Your task to perform on an android device: turn pop-ups on in chrome Image 0: 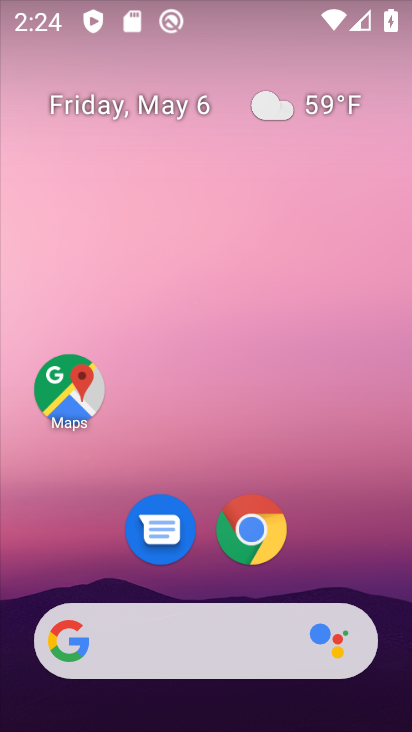
Step 0: drag from (338, 552) to (405, 0)
Your task to perform on an android device: turn pop-ups on in chrome Image 1: 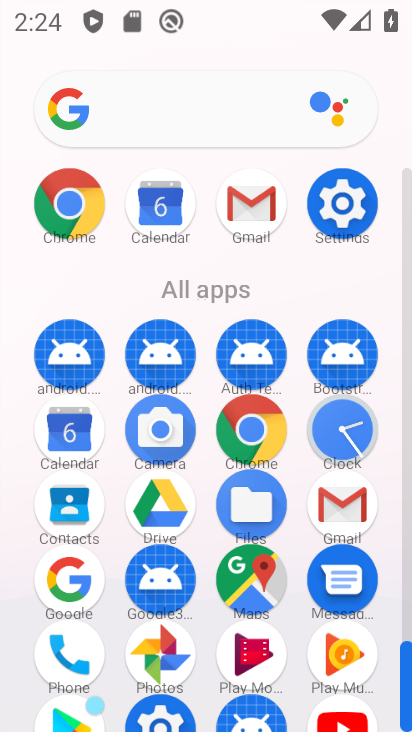
Step 1: click (77, 223)
Your task to perform on an android device: turn pop-ups on in chrome Image 2: 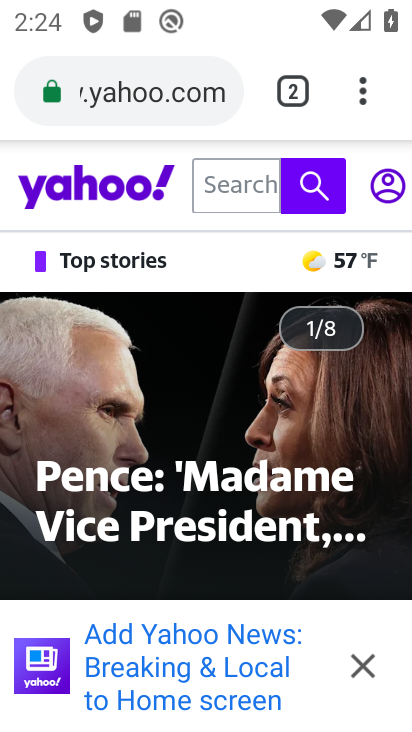
Step 2: drag from (371, 101) to (98, 546)
Your task to perform on an android device: turn pop-ups on in chrome Image 3: 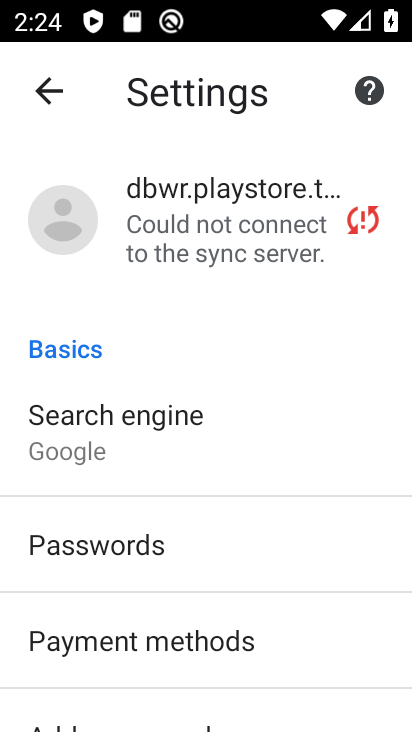
Step 3: drag from (138, 568) to (189, 84)
Your task to perform on an android device: turn pop-ups on in chrome Image 4: 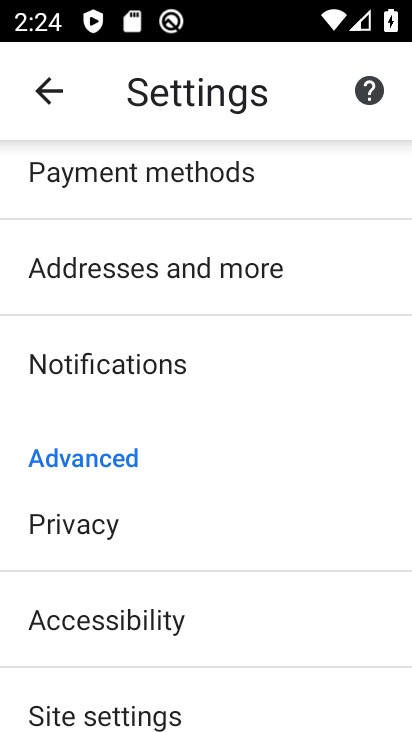
Step 4: drag from (160, 556) to (157, 200)
Your task to perform on an android device: turn pop-ups on in chrome Image 5: 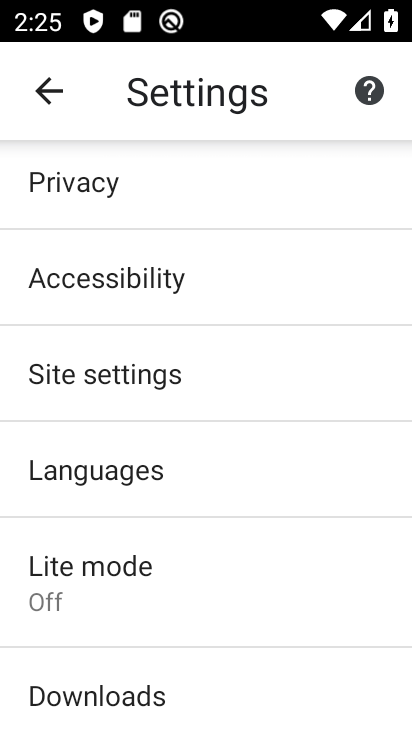
Step 5: click (71, 369)
Your task to perform on an android device: turn pop-ups on in chrome Image 6: 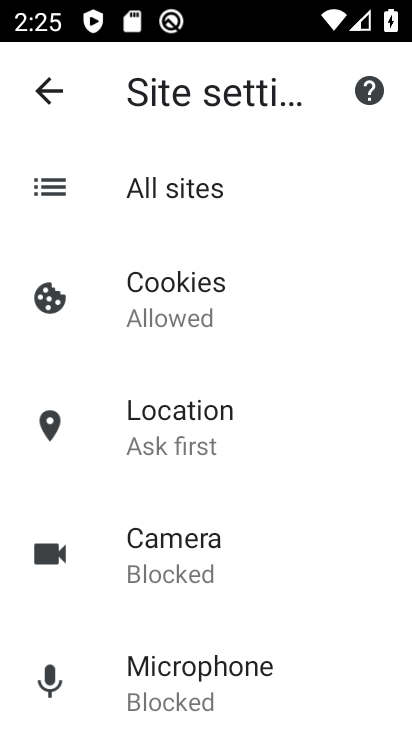
Step 6: drag from (189, 592) to (230, 236)
Your task to perform on an android device: turn pop-ups on in chrome Image 7: 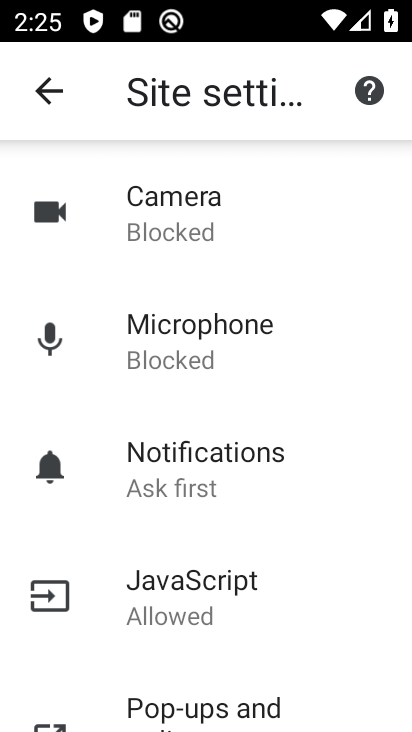
Step 7: drag from (195, 692) to (211, 348)
Your task to perform on an android device: turn pop-ups on in chrome Image 8: 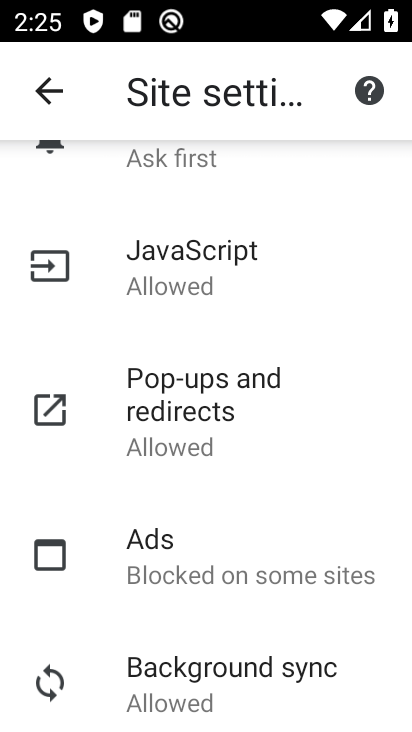
Step 8: click (180, 398)
Your task to perform on an android device: turn pop-ups on in chrome Image 9: 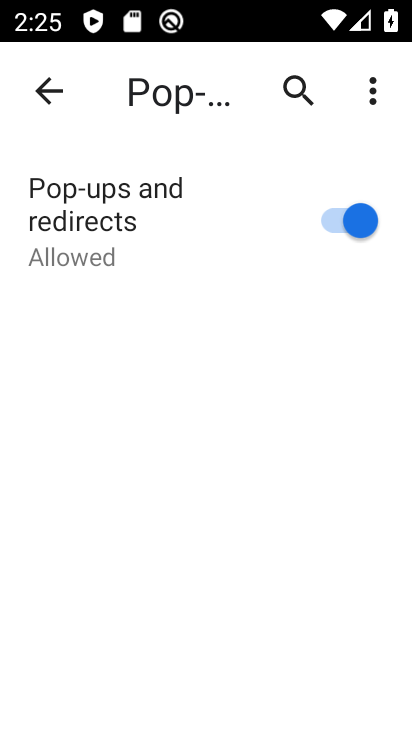
Step 9: task complete